Your task to perform on an android device: turn vacation reply on in the gmail app Image 0: 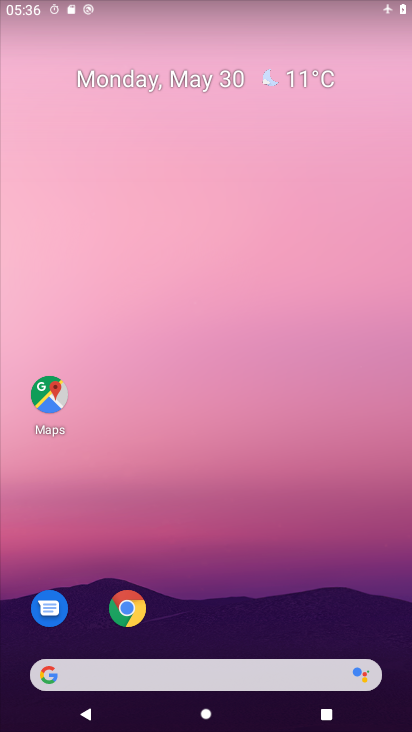
Step 0: drag from (273, 575) to (119, 12)
Your task to perform on an android device: turn vacation reply on in the gmail app Image 1: 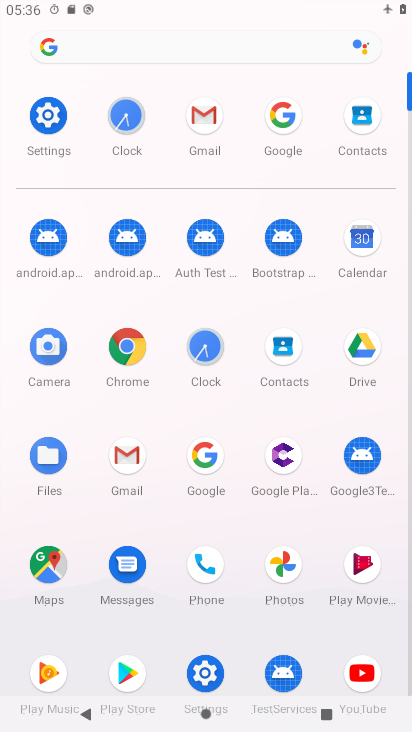
Step 1: click (129, 457)
Your task to perform on an android device: turn vacation reply on in the gmail app Image 2: 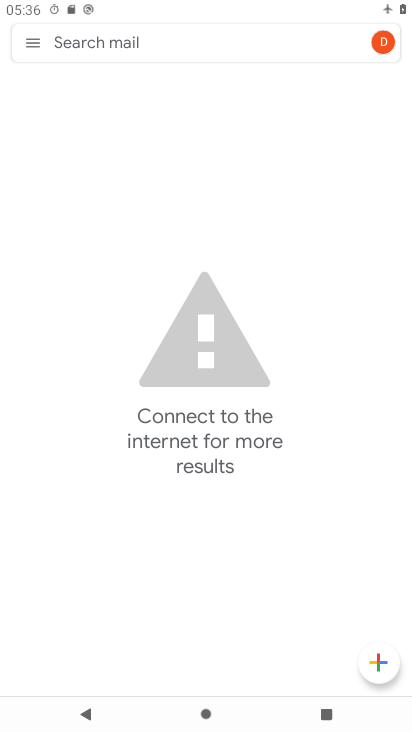
Step 2: click (22, 42)
Your task to perform on an android device: turn vacation reply on in the gmail app Image 3: 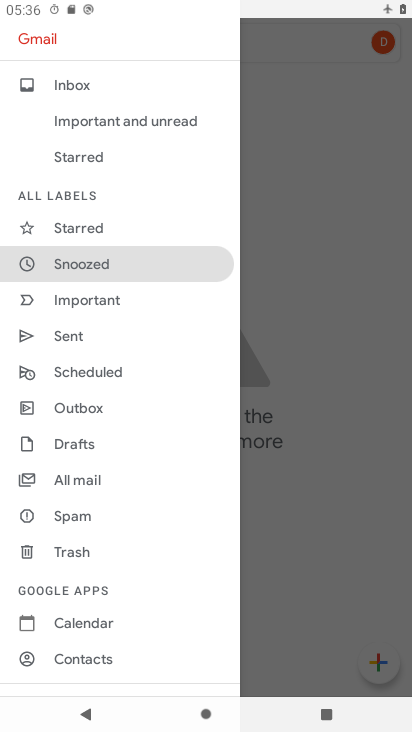
Step 3: drag from (143, 545) to (131, 163)
Your task to perform on an android device: turn vacation reply on in the gmail app Image 4: 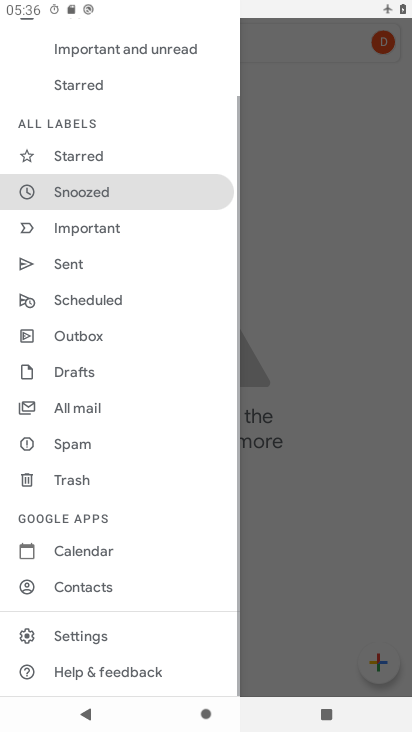
Step 4: click (109, 637)
Your task to perform on an android device: turn vacation reply on in the gmail app Image 5: 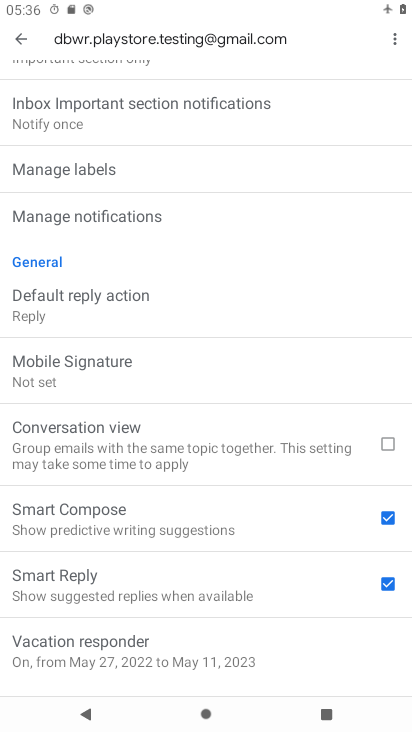
Step 5: drag from (191, 551) to (254, 135)
Your task to perform on an android device: turn vacation reply on in the gmail app Image 6: 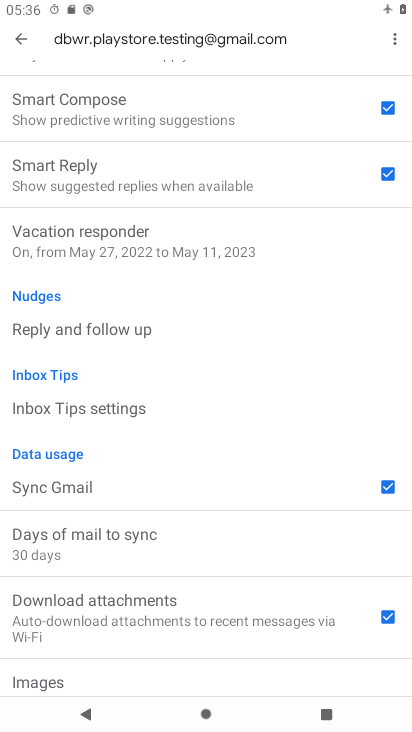
Step 6: click (115, 246)
Your task to perform on an android device: turn vacation reply on in the gmail app Image 7: 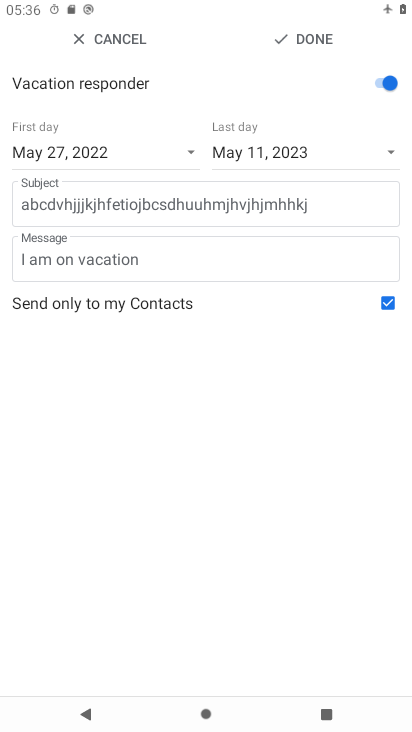
Step 7: click (320, 39)
Your task to perform on an android device: turn vacation reply on in the gmail app Image 8: 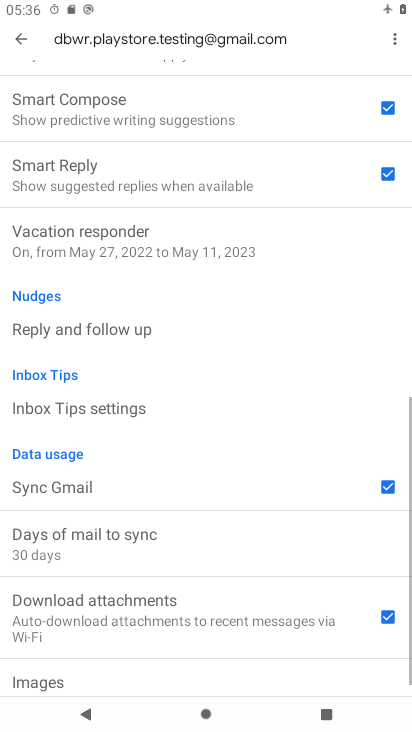
Step 8: task complete